Your task to perform on an android device: Is it going to rain today? Image 0: 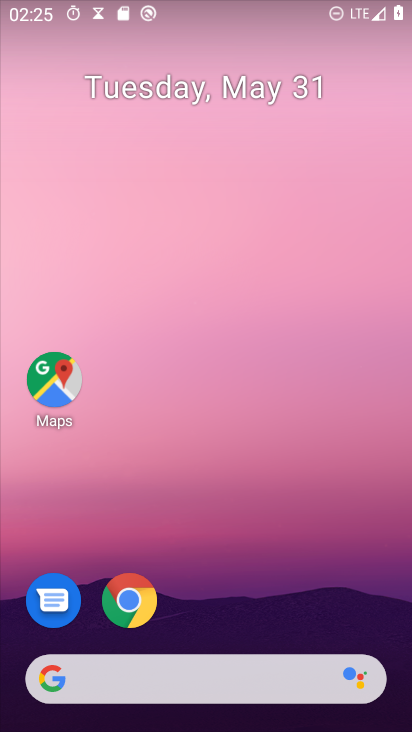
Step 0: drag from (196, 722) to (203, 112)
Your task to perform on an android device: Is it going to rain today? Image 1: 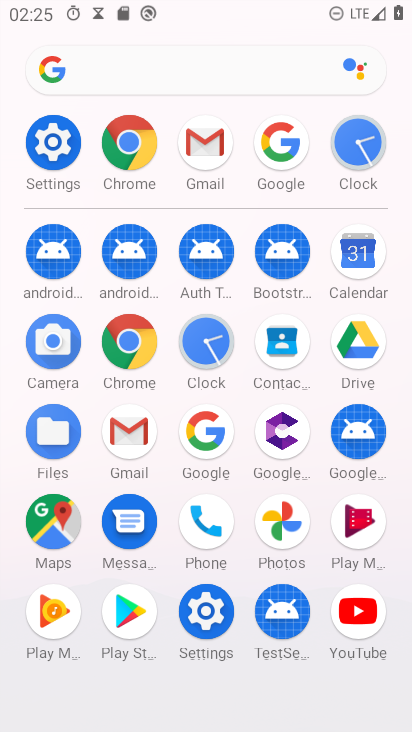
Step 1: click (279, 152)
Your task to perform on an android device: Is it going to rain today? Image 2: 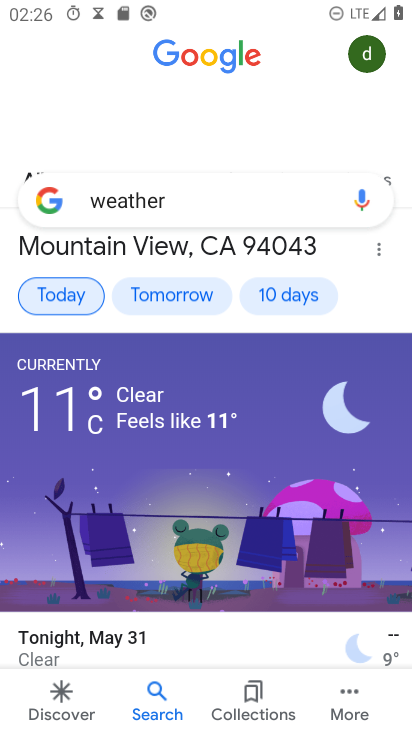
Step 2: click (61, 292)
Your task to perform on an android device: Is it going to rain today? Image 3: 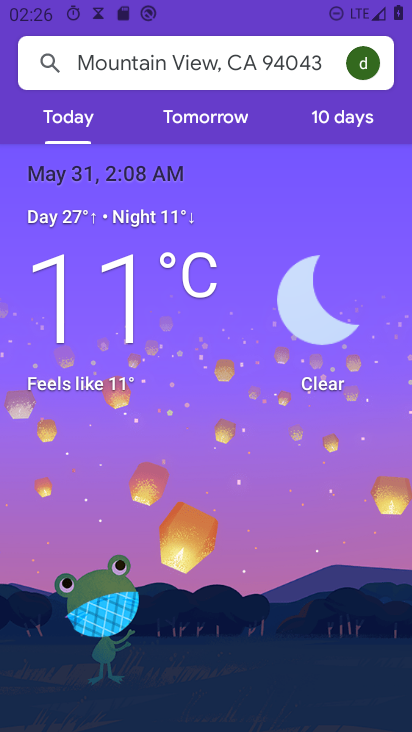
Step 3: task complete